Your task to perform on an android device: open chrome and create a bookmark for the current page Image 0: 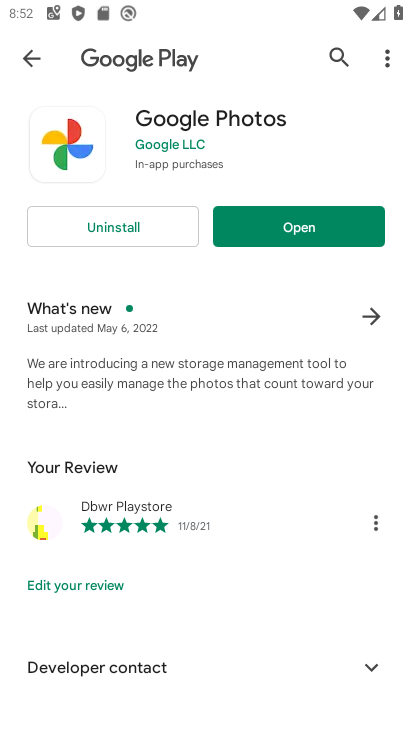
Step 0: press home button
Your task to perform on an android device: open chrome and create a bookmark for the current page Image 1: 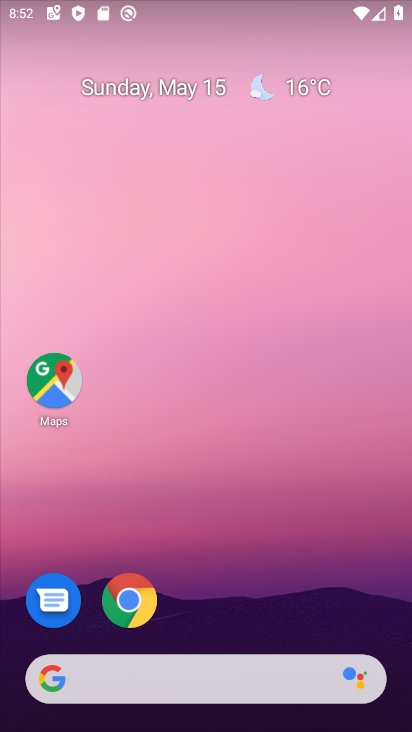
Step 1: click (127, 600)
Your task to perform on an android device: open chrome and create a bookmark for the current page Image 2: 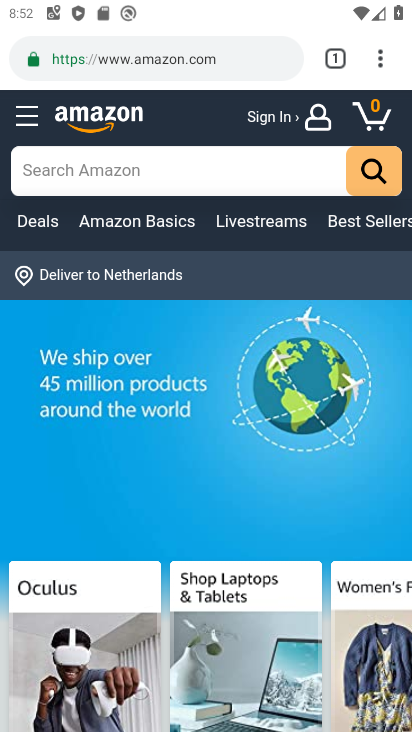
Step 2: click (370, 56)
Your task to perform on an android device: open chrome and create a bookmark for the current page Image 3: 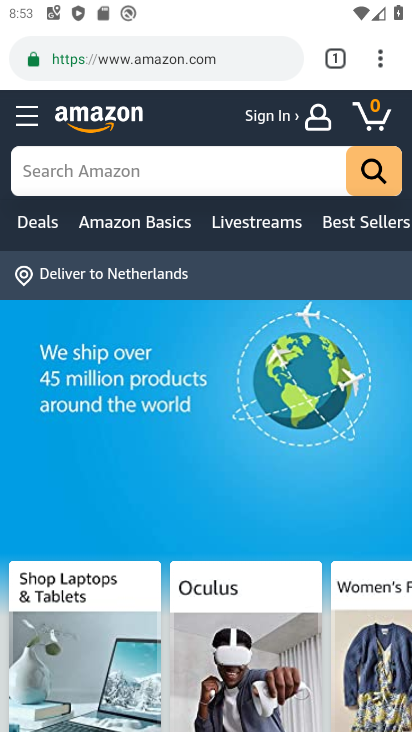
Step 3: task complete